Your task to perform on an android device: turn on location history Image 0: 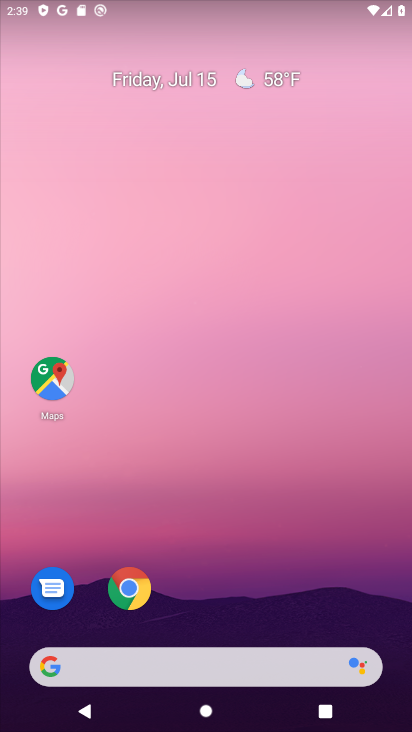
Step 0: click (151, 603)
Your task to perform on an android device: turn on location history Image 1: 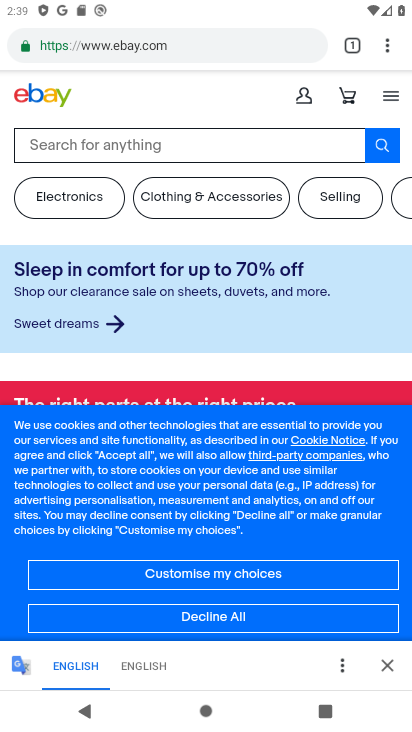
Step 1: click (381, 52)
Your task to perform on an android device: turn on location history Image 2: 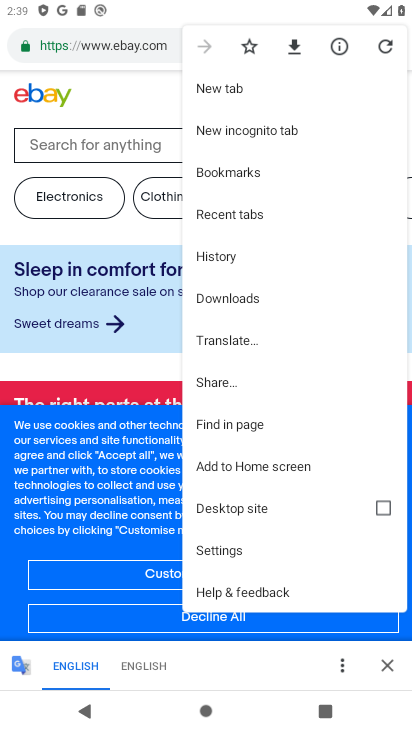
Step 2: task complete